Your task to perform on an android device: Find coffee shops on Maps Image 0: 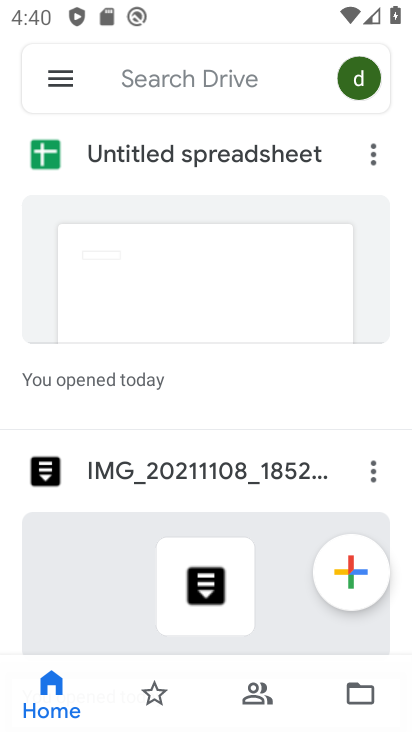
Step 0: press home button
Your task to perform on an android device: Find coffee shops on Maps Image 1: 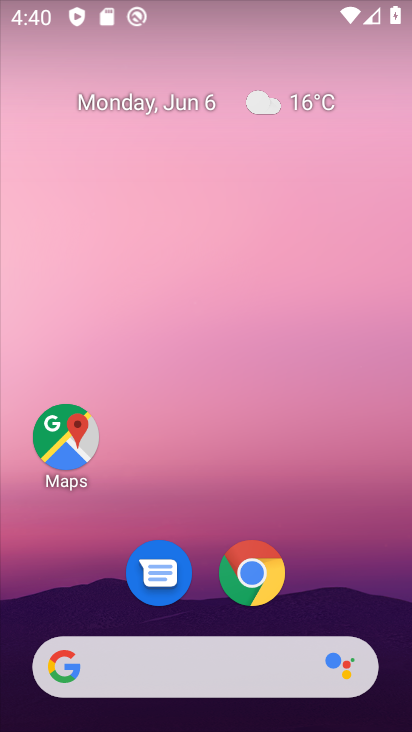
Step 1: click (69, 439)
Your task to perform on an android device: Find coffee shops on Maps Image 2: 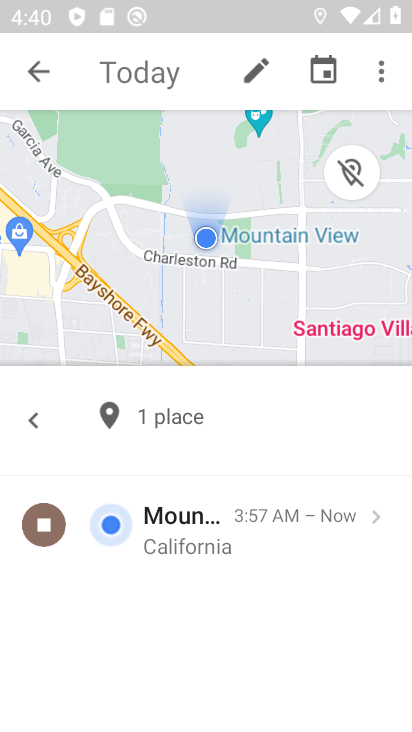
Step 2: click (42, 70)
Your task to perform on an android device: Find coffee shops on Maps Image 3: 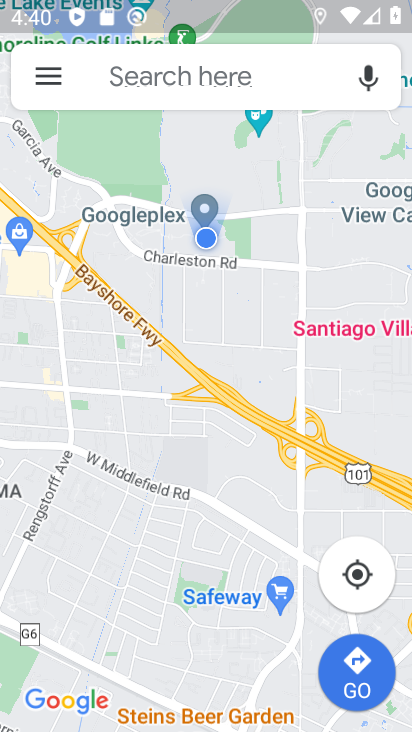
Step 3: click (215, 78)
Your task to perform on an android device: Find coffee shops on Maps Image 4: 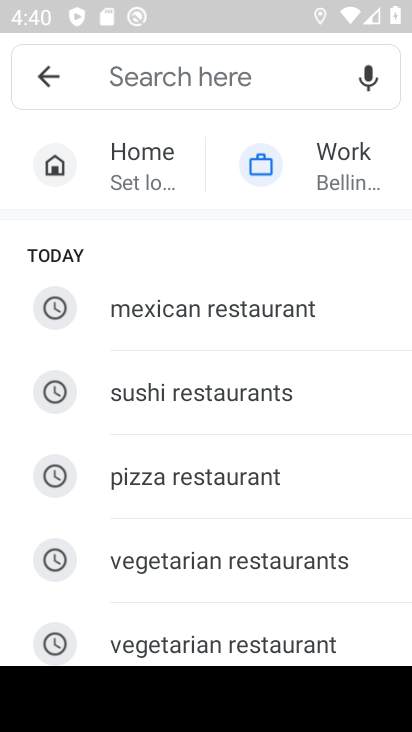
Step 4: type "coffee"
Your task to perform on an android device: Find coffee shops on Maps Image 5: 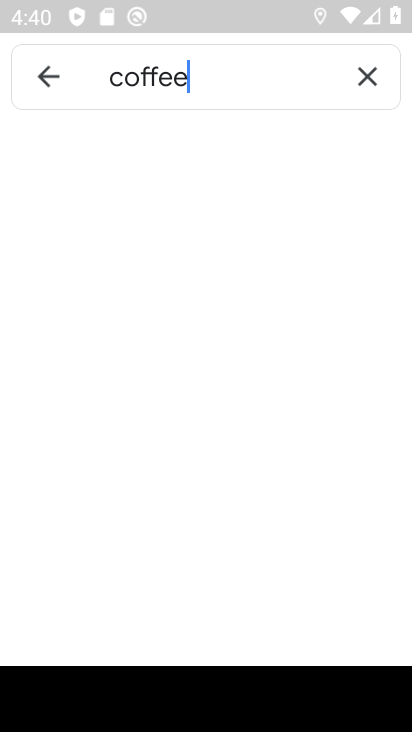
Step 5: type ""
Your task to perform on an android device: Find coffee shops on Maps Image 6: 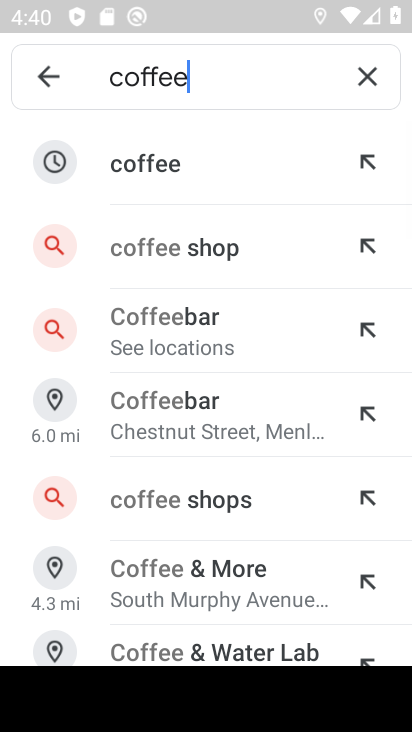
Step 6: click (185, 165)
Your task to perform on an android device: Find coffee shops on Maps Image 7: 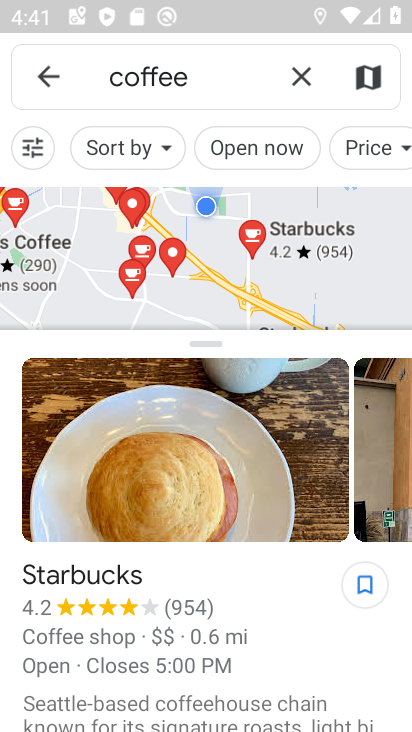
Step 7: task complete